Your task to perform on an android device: Go to network settings Image 0: 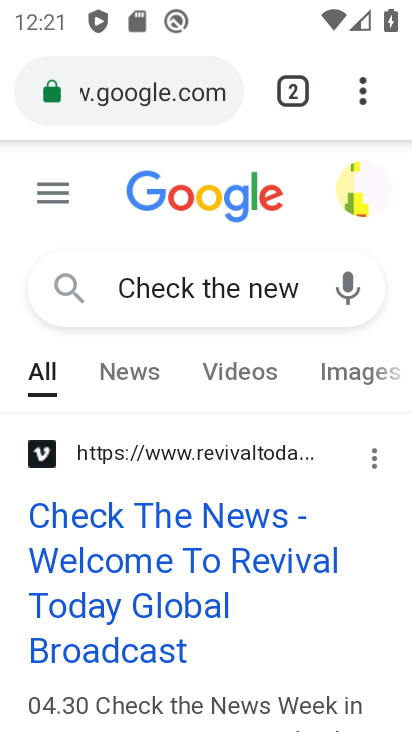
Step 0: press home button
Your task to perform on an android device: Go to network settings Image 1: 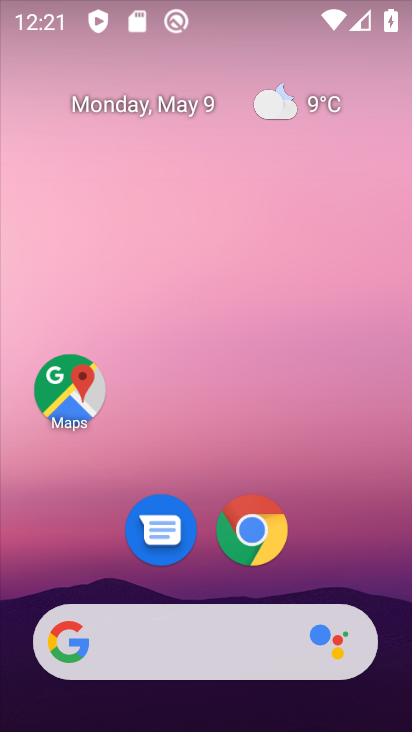
Step 1: drag from (347, 430) to (349, 253)
Your task to perform on an android device: Go to network settings Image 2: 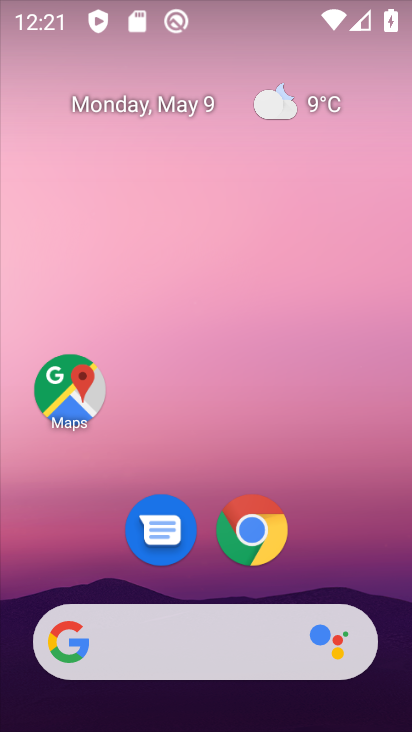
Step 2: drag from (319, 558) to (360, 212)
Your task to perform on an android device: Go to network settings Image 3: 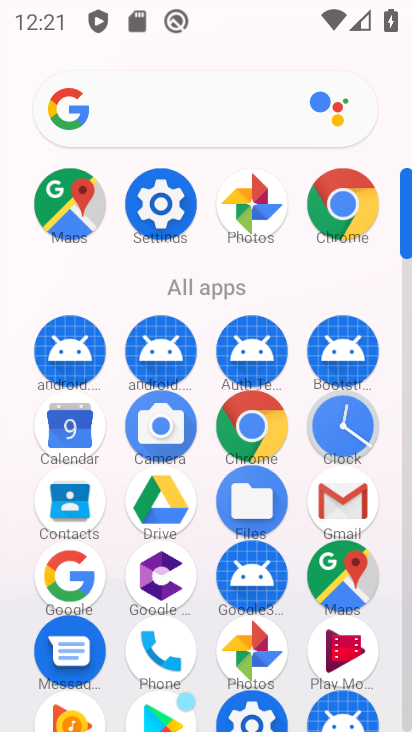
Step 3: click (161, 195)
Your task to perform on an android device: Go to network settings Image 4: 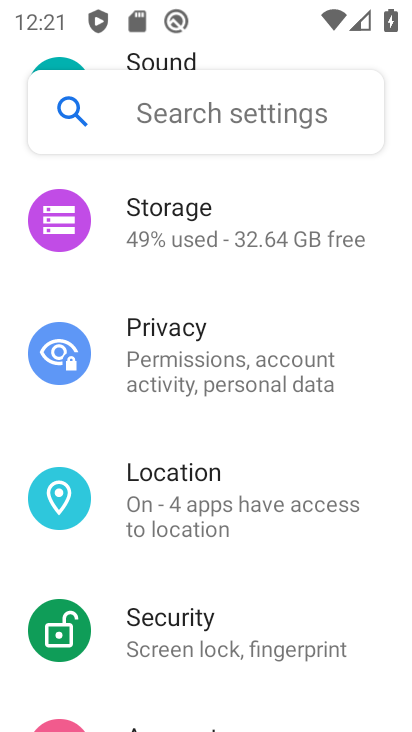
Step 4: drag from (256, 259) to (246, 622)
Your task to perform on an android device: Go to network settings Image 5: 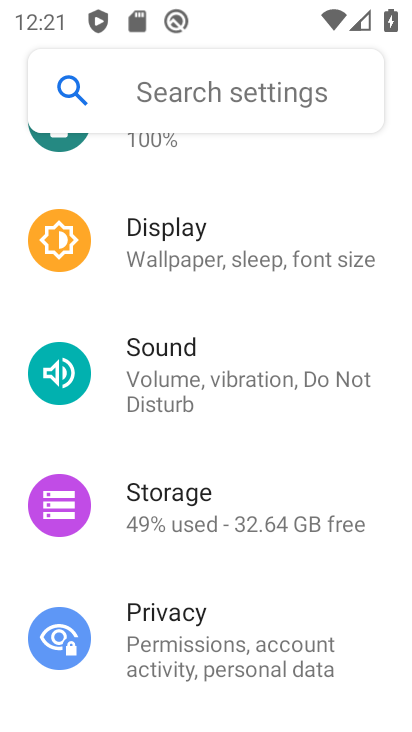
Step 5: drag from (270, 209) to (287, 666)
Your task to perform on an android device: Go to network settings Image 6: 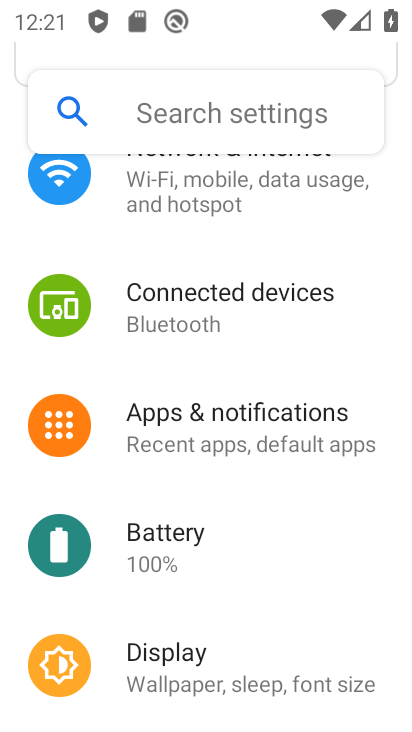
Step 6: drag from (239, 206) to (234, 526)
Your task to perform on an android device: Go to network settings Image 7: 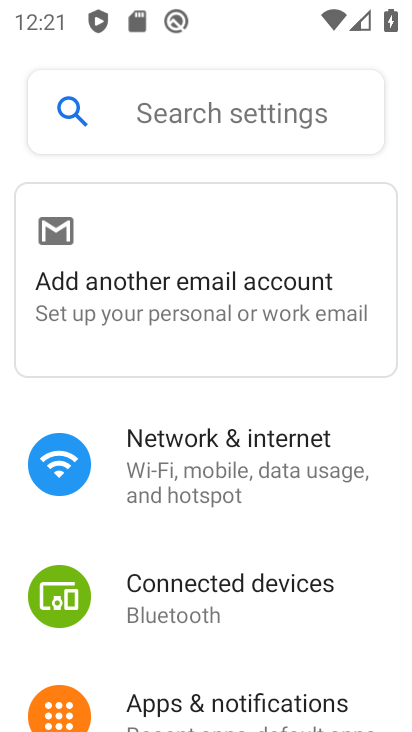
Step 7: click (225, 456)
Your task to perform on an android device: Go to network settings Image 8: 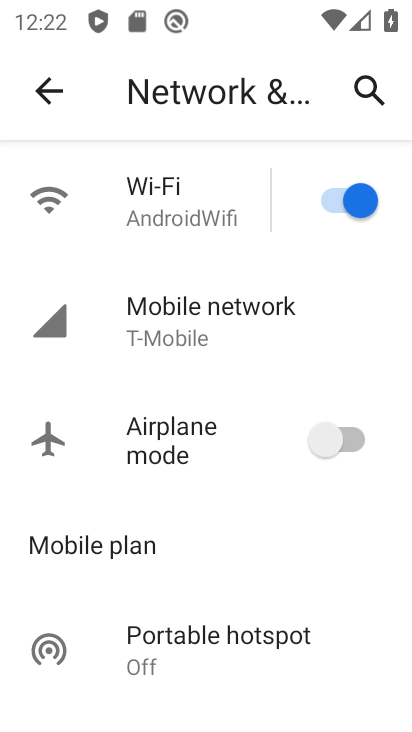
Step 8: task complete